Your task to perform on an android device: turn on wifi Image 0: 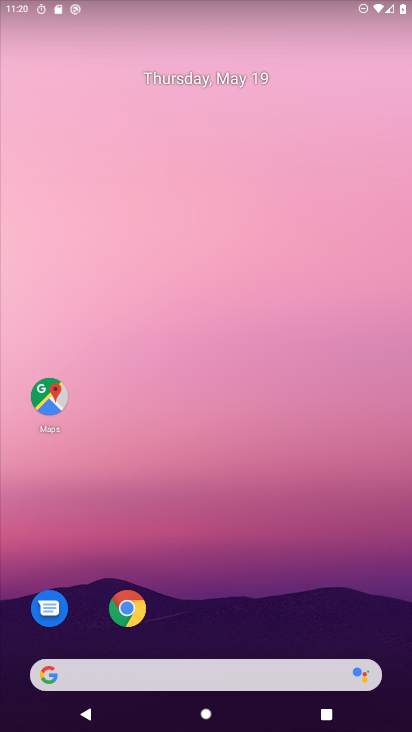
Step 0: drag from (395, 679) to (316, 154)
Your task to perform on an android device: turn on wifi Image 1: 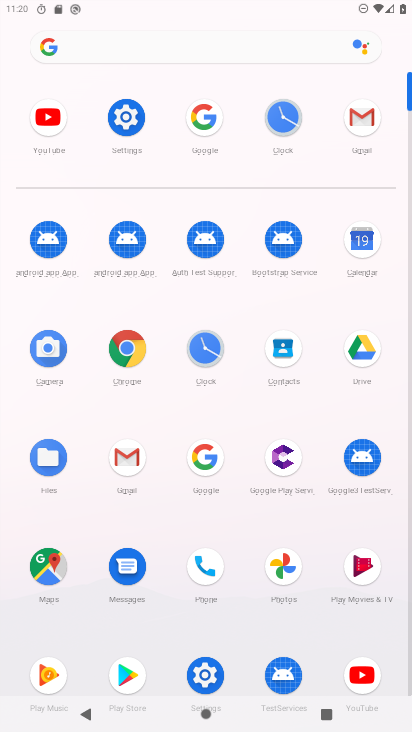
Step 1: click (136, 111)
Your task to perform on an android device: turn on wifi Image 2: 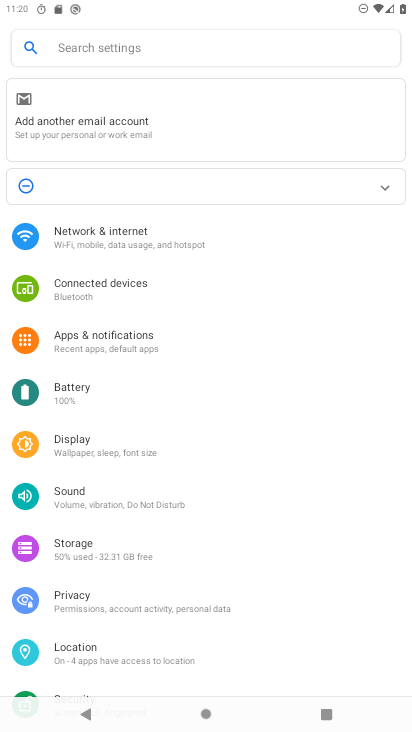
Step 2: click (140, 230)
Your task to perform on an android device: turn on wifi Image 3: 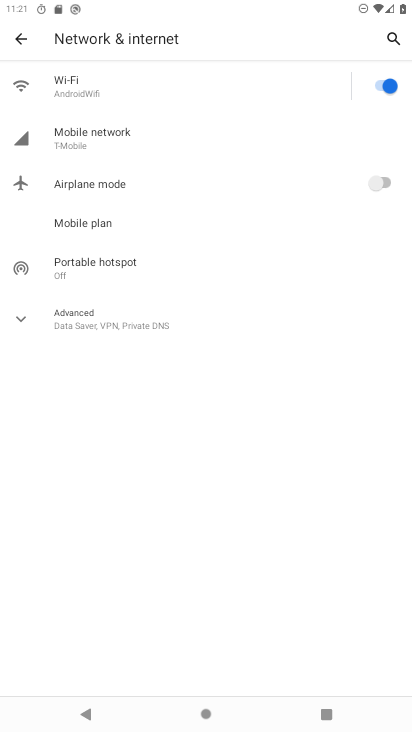
Step 3: task complete